Your task to perform on an android device: Open the stopwatch Image 0: 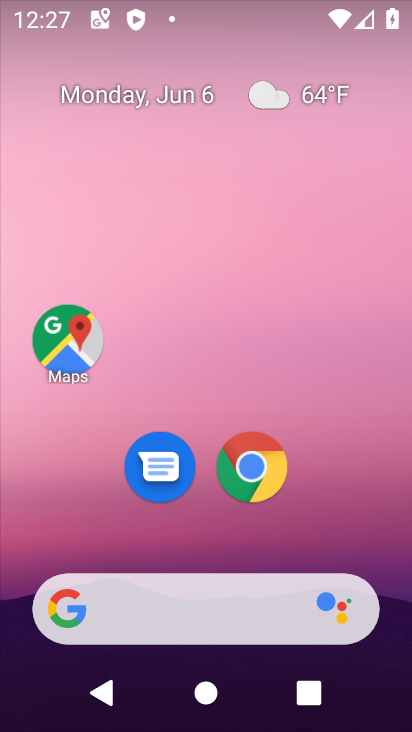
Step 0: drag from (316, 517) to (284, 65)
Your task to perform on an android device: Open the stopwatch Image 1: 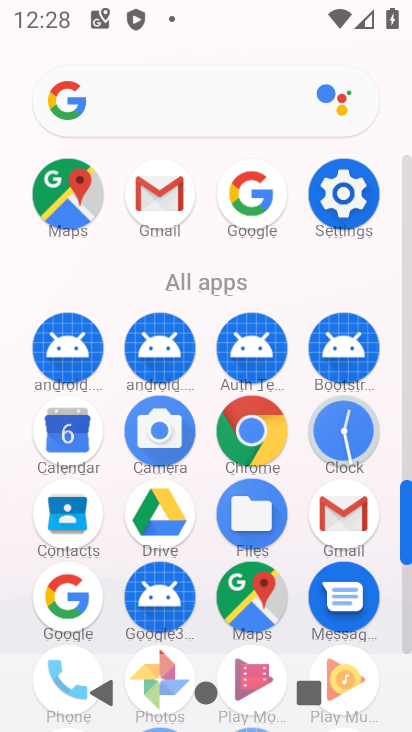
Step 1: click (344, 428)
Your task to perform on an android device: Open the stopwatch Image 2: 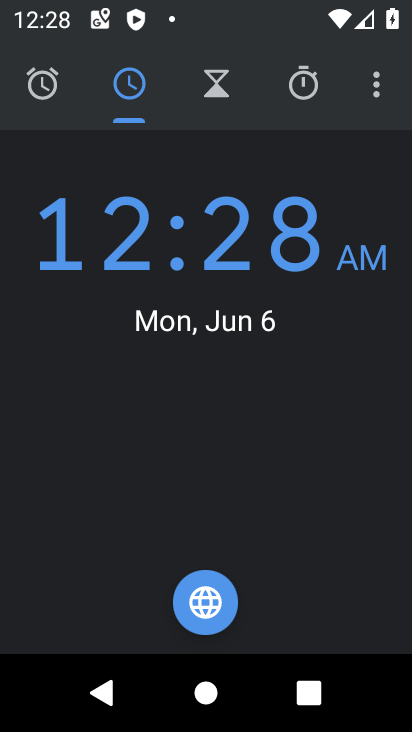
Step 2: click (303, 92)
Your task to perform on an android device: Open the stopwatch Image 3: 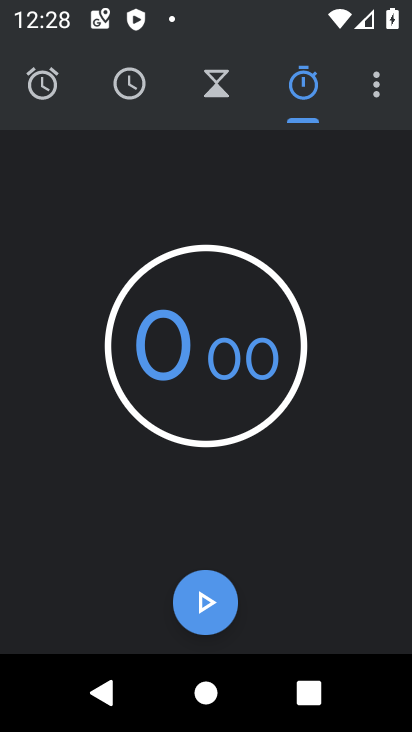
Step 3: task complete